Your task to perform on an android device: Open calendar and show me the fourth week of next month Image 0: 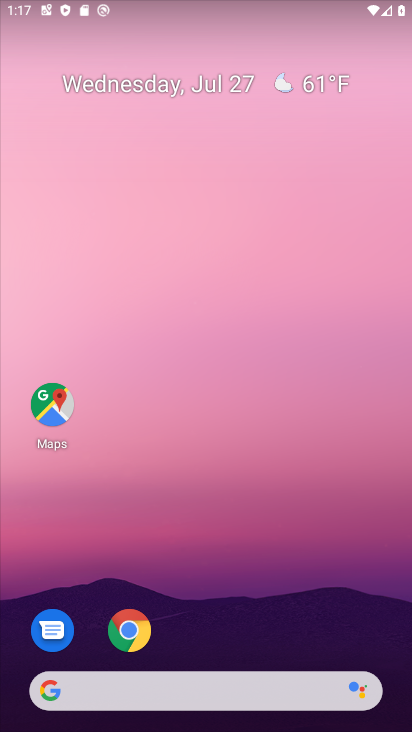
Step 0: drag from (241, 644) to (366, 145)
Your task to perform on an android device: Open calendar and show me the fourth week of next month Image 1: 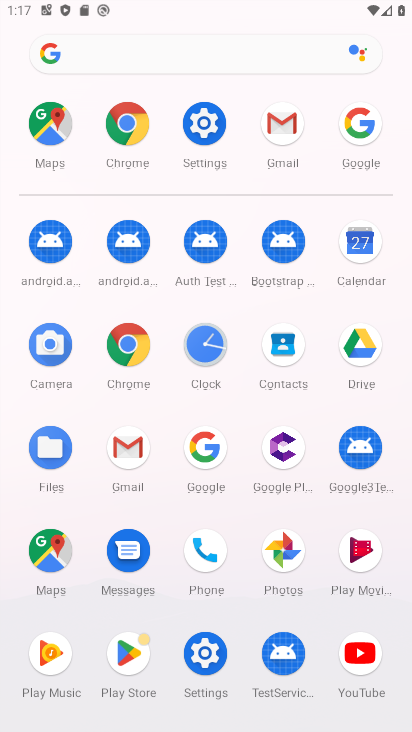
Step 1: click (354, 246)
Your task to perform on an android device: Open calendar and show me the fourth week of next month Image 2: 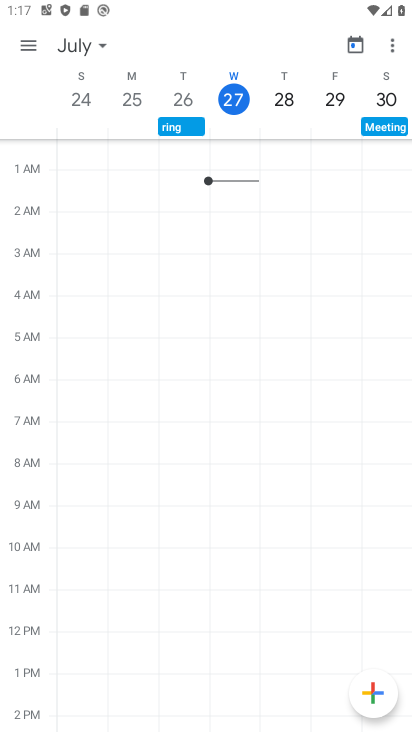
Step 2: click (76, 48)
Your task to perform on an android device: Open calendar and show me the fourth week of next month Image 3: 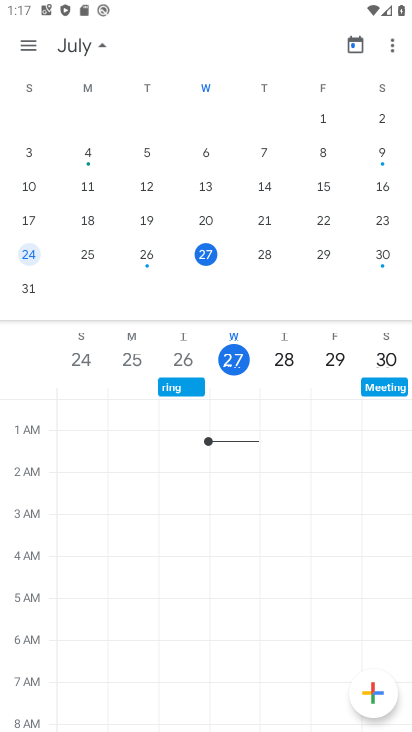
Step 3: drag from (381, 230) to (0, 214)
Your task to perform on an android device: Open calendar and show me the fourth week of next month Image 4: 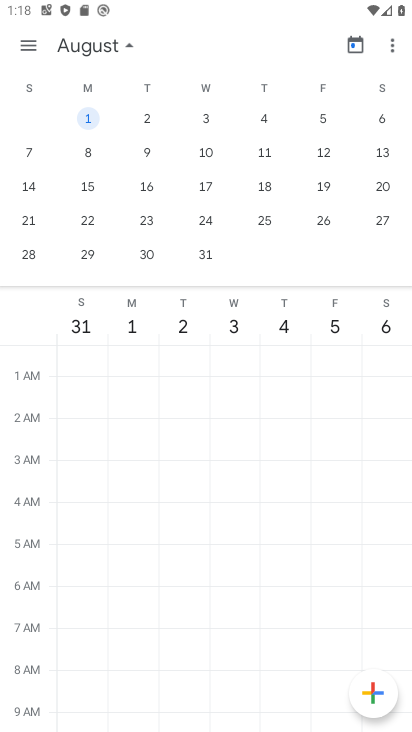
Step 4: click (26, 215)
Your task to perform on an android device: Open calendar and show me the fourth week of next month Image 5: 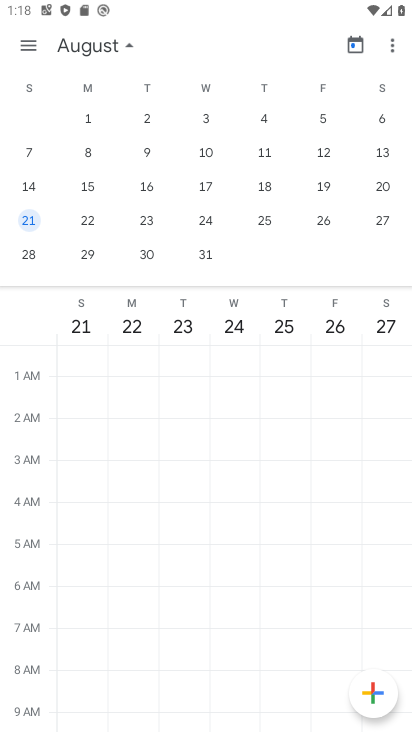
Step 5: task complete